Your task to perform on an android device: When is my next meeting? Image 0: 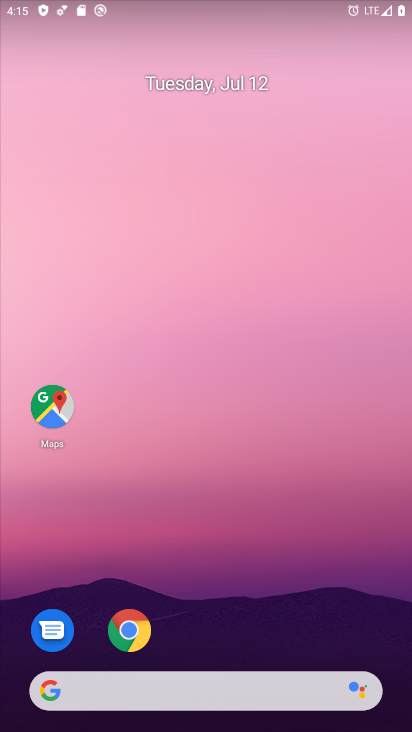
Step 0: press back button
Your task to perform on an android device: When is my next meeting? Image 1: 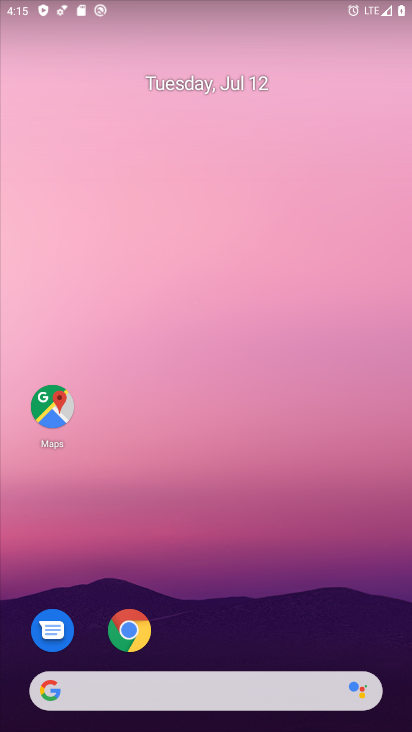
Step 1: drag from (239, 667) to (161, 206)
Your task to perform on an android device: When is my next meeting? Image 2: 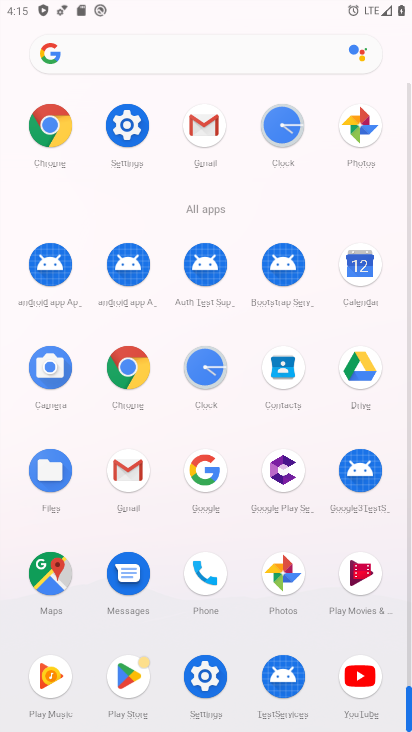
Step 2: click (123, 129)
Your task to perform on an android device: When is my next meeting? Image 3: 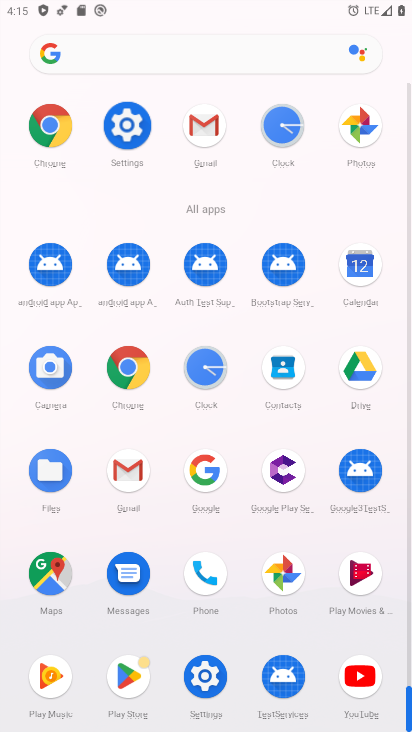
Step 3: click (135, 125)
Your task to perform on an android device: When is my next meeting? Image 4: 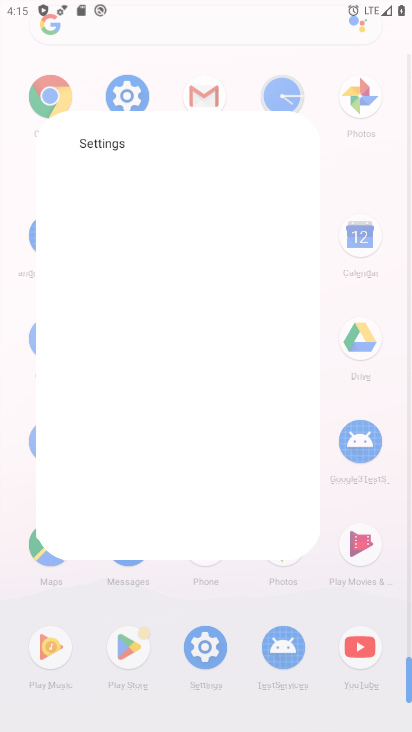
Step 4: click (135, 125)
Your task to perform on an android device: When is my next meeting? Image 5: 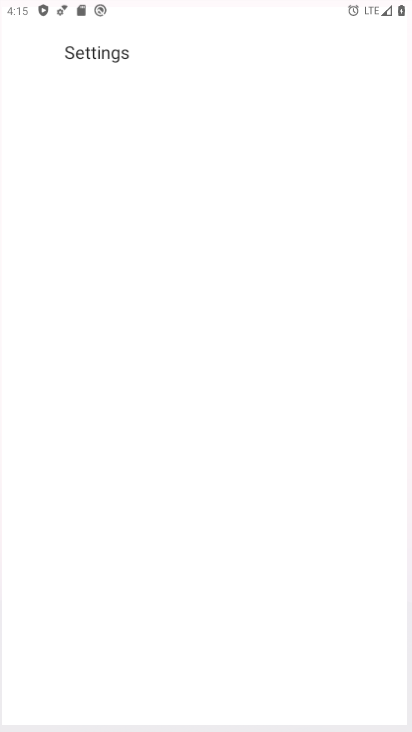
Step 5: click (136, 126)
Your task to perform on an android device: When is my next meeting? Image 6: 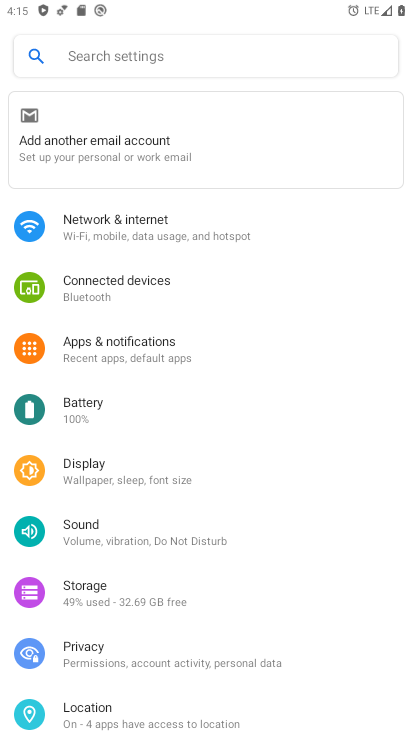
Step 6: press back button
Your task to perform on an android device: When is my next meeting? Image 7: 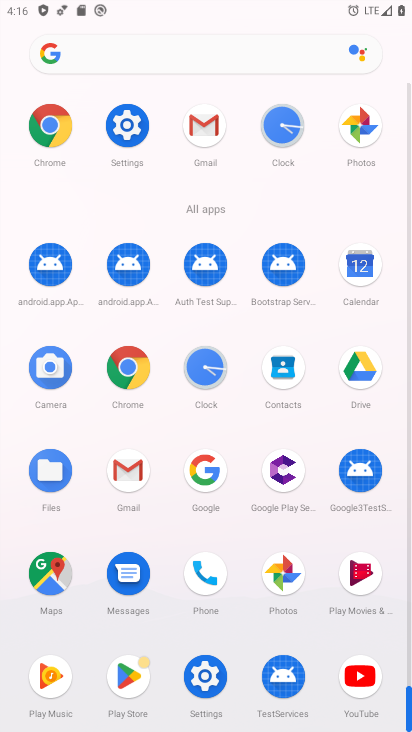
Step 7: click (365, 258)
Your task to perform on an android device: When is my next meeting? Image 8: 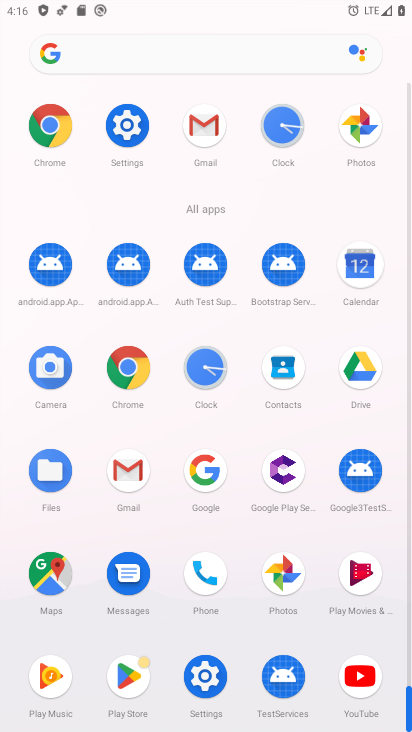
Step 8: click (369, 267)
Your task to perform on an android device: When is my next meeting? Image 9: 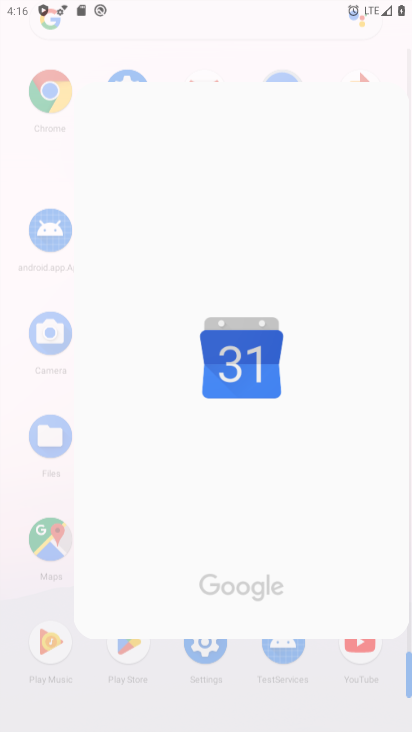
Step 9: click (367, 265)
Your task to perform on an android device: When is my next meeting? Image 10: 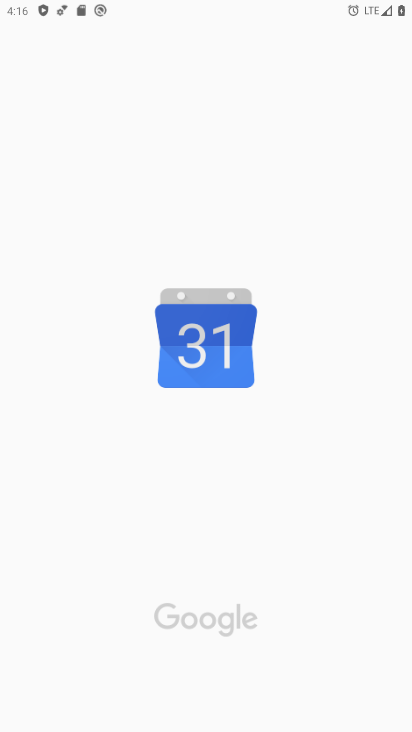
Step 10: click (368, 267)
Your task to perform on an android device: When is my next meeting? Image 11: 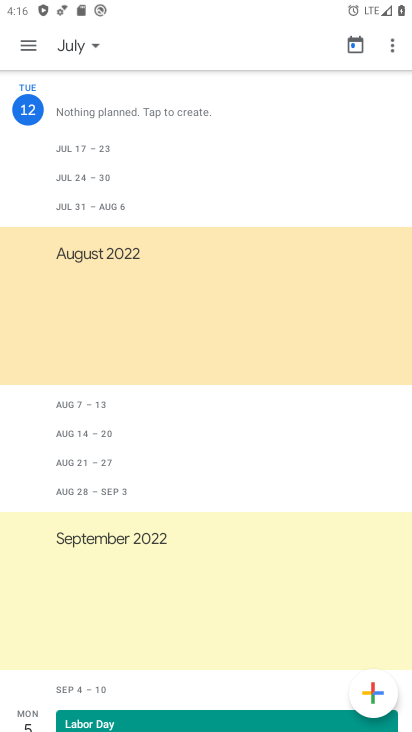
Step 11: click (70, 401)
Your task to perform on an android device: When is my next meeting? Image 12: 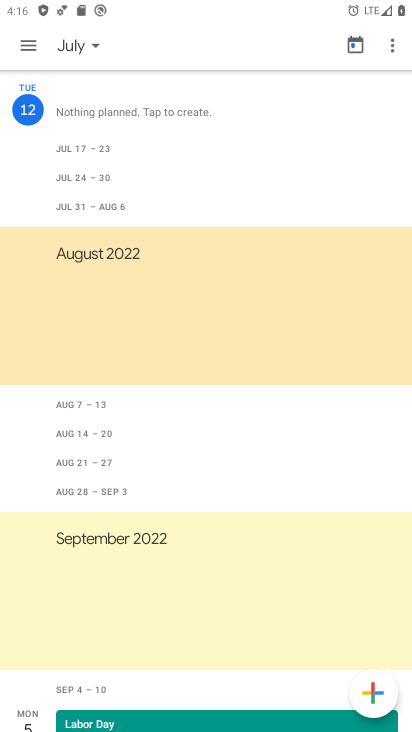
Step 12: click (75, 403)
Your task to perform on an android device: When is my next meeting? Image 13: 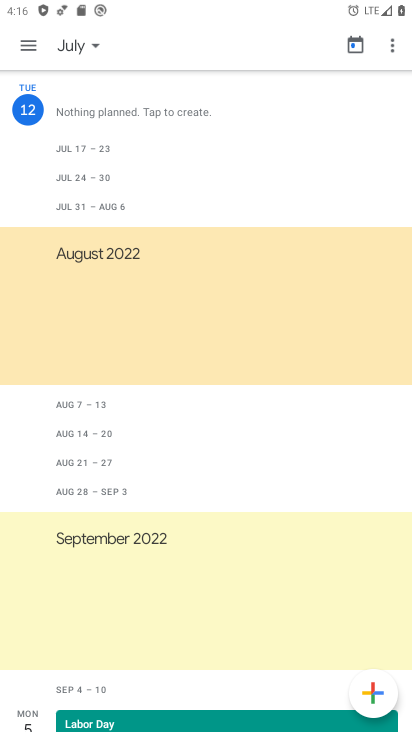
Step 13: click (78, 403)
Your task to perform on an android device: When is my next meeting? Image 14: 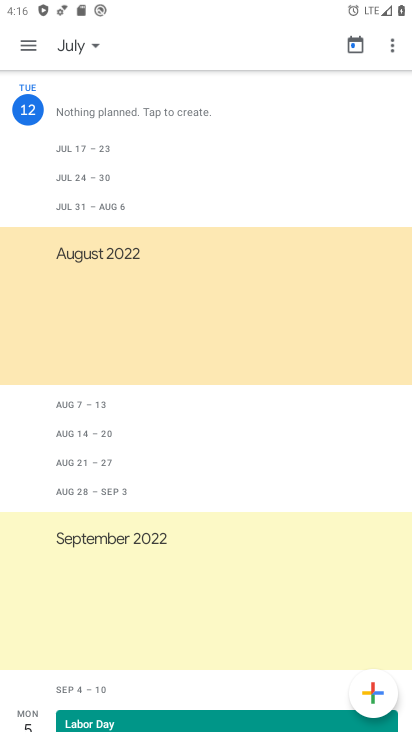
Step 14: click (93, 398)
Your task to perform on an android device: When is my next meeting? Image 15: 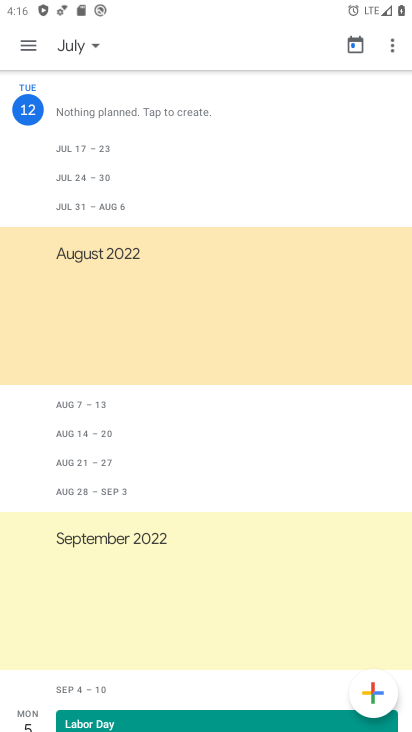
Step 15: task complete